Your task to perform on an android device: toggle sleep mode Image 0: 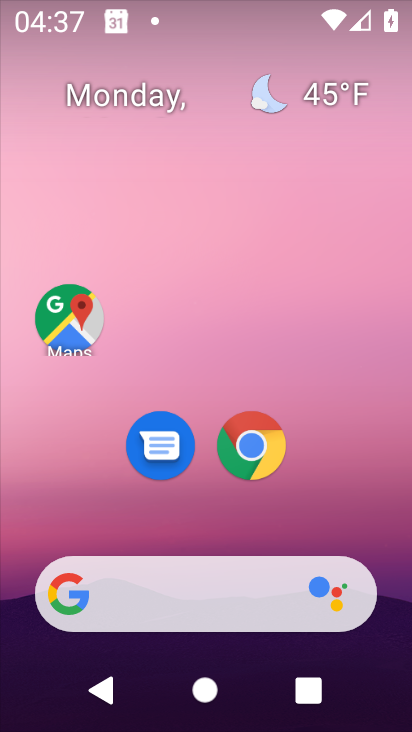
Step 0: drag from (197, 516) to (218, 106)
Your task to perform on an android device: toggle sleep mode Image 1: 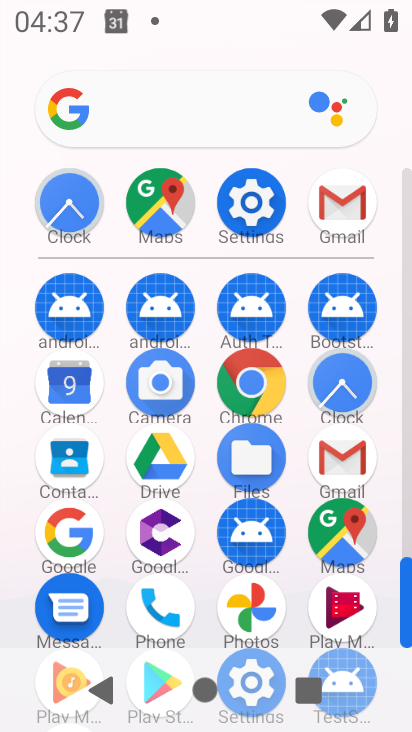
Step 1: click (249, 191)
Your task to perform on an android device: toggle sleep mode Image 2: 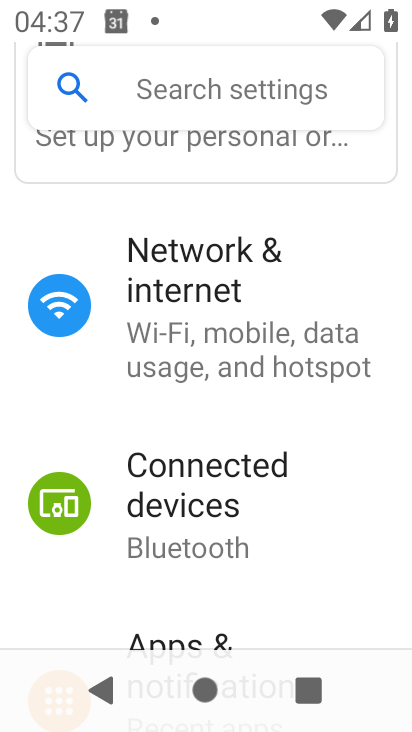
Step 2: drag from (290, 574) to (269, 260)
Your task to perform on an android device: toggle sleep mode Image 3: 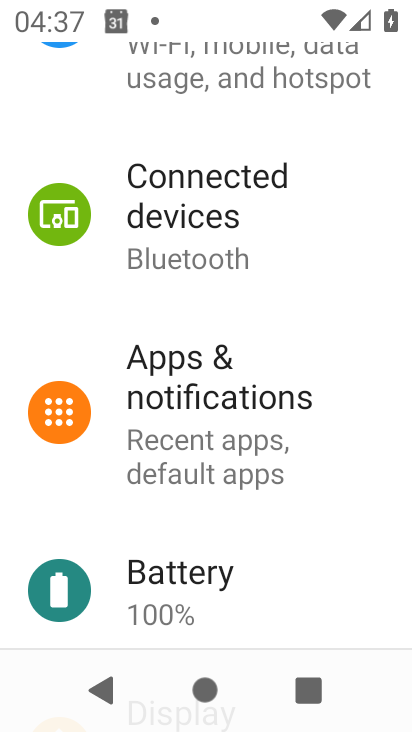
Step 3: drag from (244, 564) to (256, 142)
Your task to perform on an android device: toggle sleep mode Image 4: 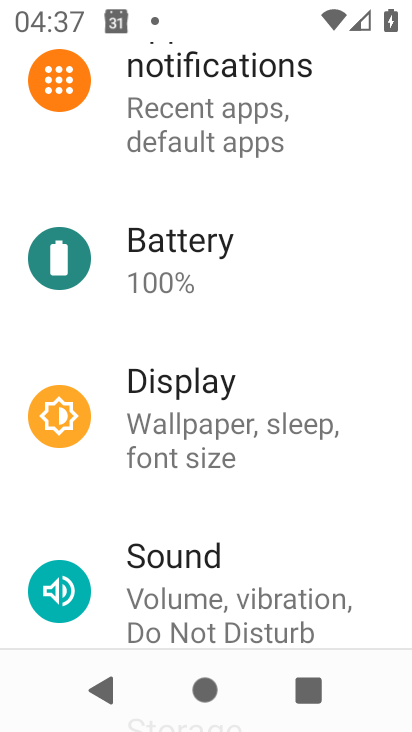
Step 4: click (292, 399)
Your task to perform on an android device: toggle sleep mode Image 5: 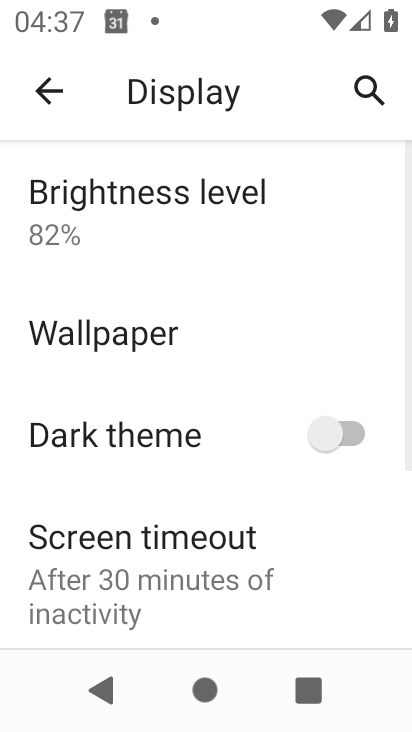
Step 5: drag from (264, 572) to (278, 178)
Your task to perform on an android device: toggle sleep mode Image 6: 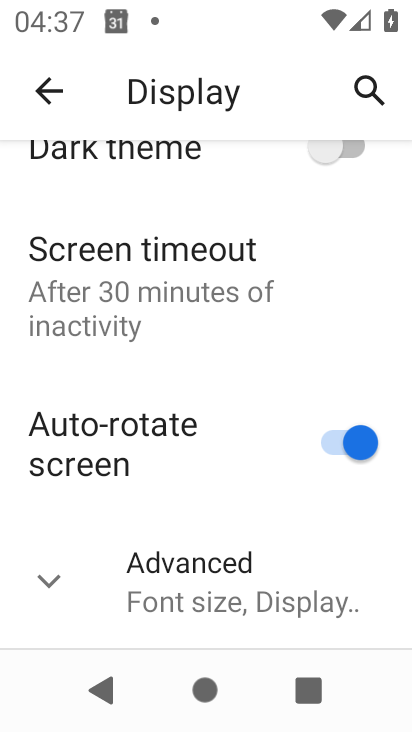
Step 6: click (283, 571)
Your task to perform on an android device: toggle sleep mode Image 7: 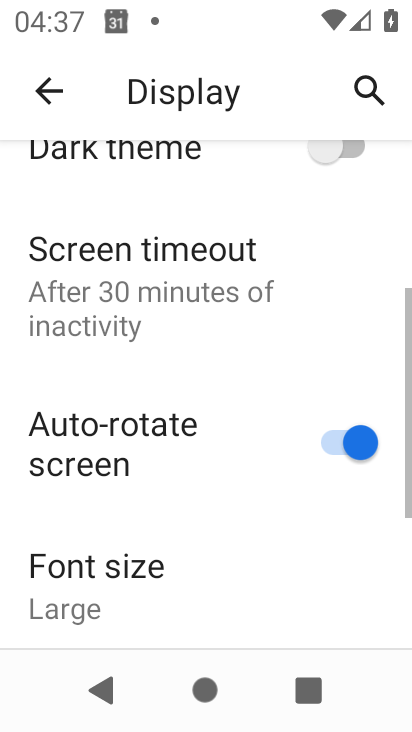
Step 7: task complete